Your task to perform on an android device: Open accessibility settings Image 0: 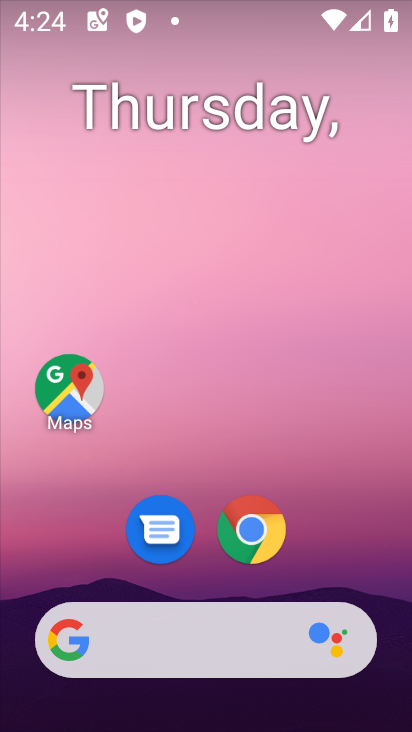
Step 0: drag from (201, 724) to (222, 106)
Your task to perform on an android device: Open accessibility settings Image 1: 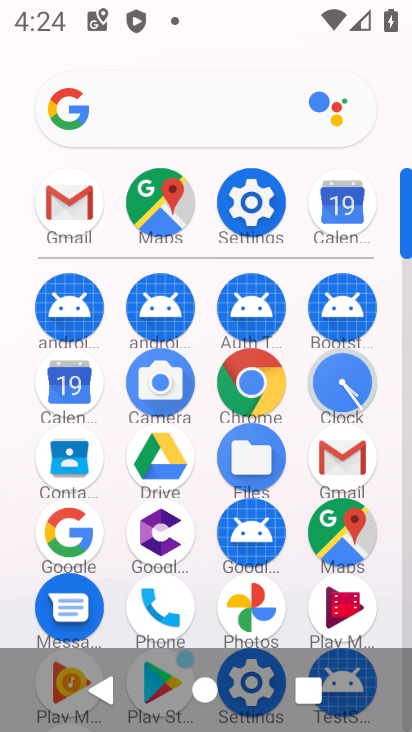
Step 1: click (258, 206)
Your task to perform on an android device: Open accessibility settings Image 2: 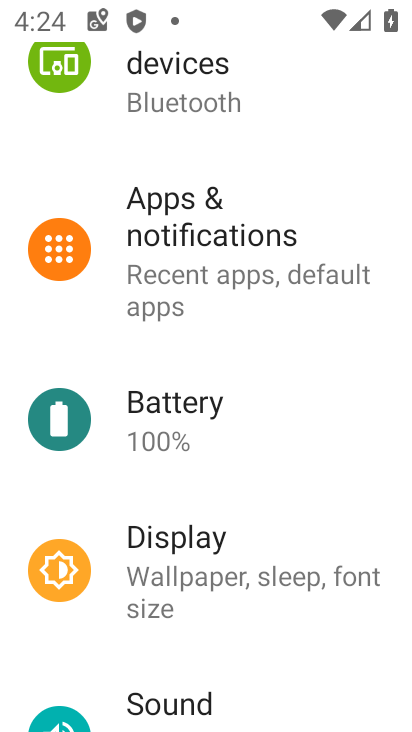
Step 2: drag from (225, 596) to (222, 197)
Your task to perform on an android device: Open accessibility settings Image 3: 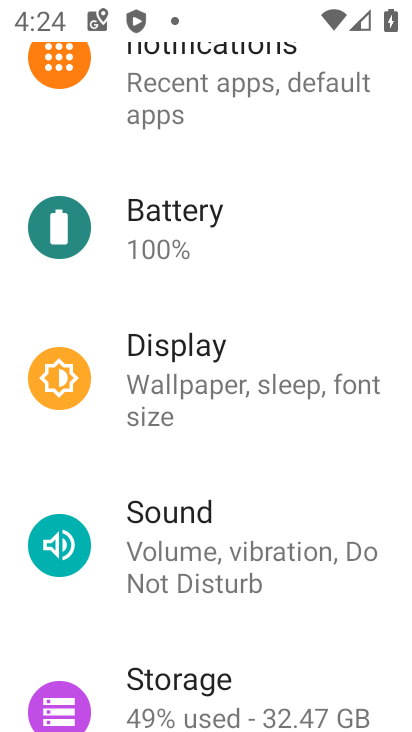
Step 3: drag from (227, 672) to (231, 247)
Your task to perform on an android device: Open accessibility settings Image 4: 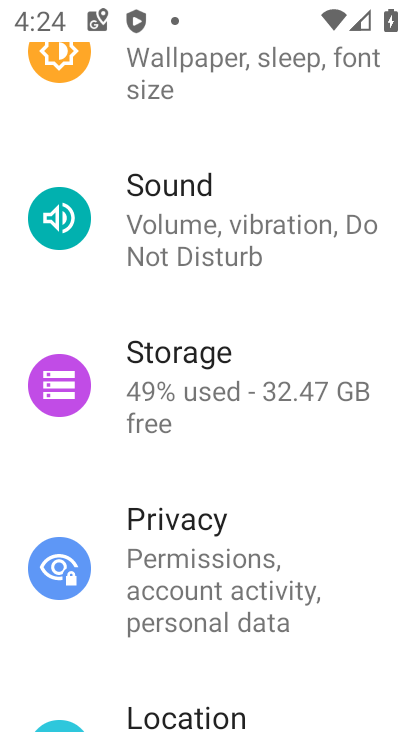
Step 4: drag from (227, 685) to (231, 239)
Your task to perform on an android device: Open accessibility settings Image 5: 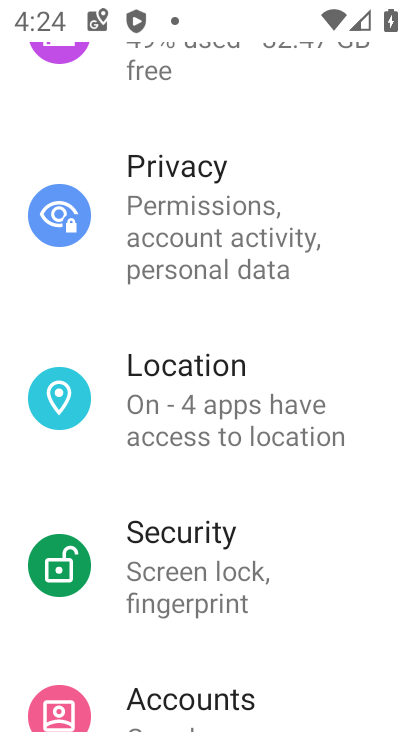
Step 5: drag from (225, 645) to (204, 276)
Your task to perform on an android device: Open accessibility settings Image 6: 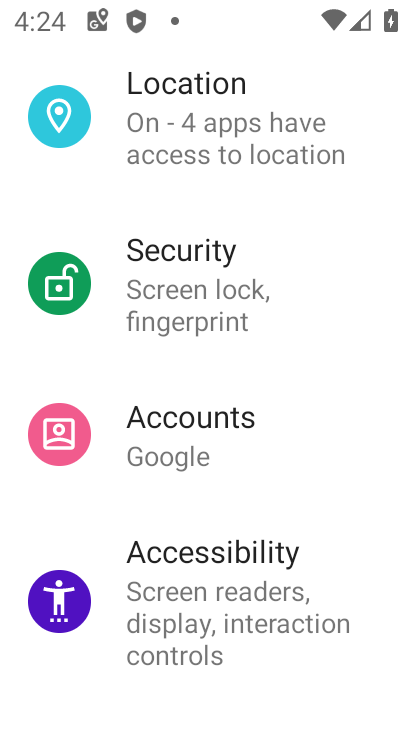
Step 6: click (228, 586)
Your task to perform on an android device: Open accessibility settings Image 7: 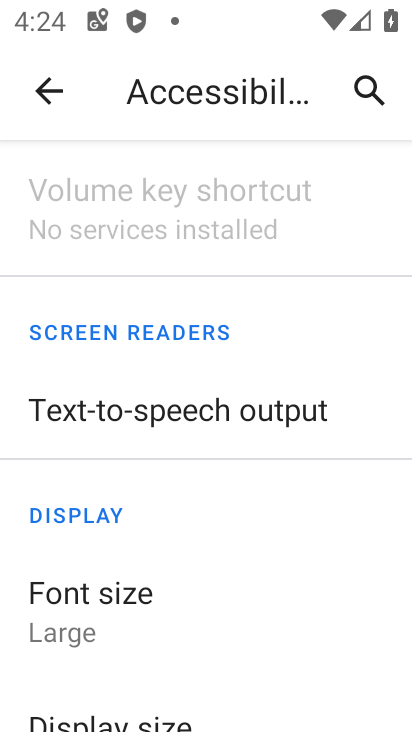
Step 7: task complete